Your task to perform on an android device: turn off airplane mode Image 0: 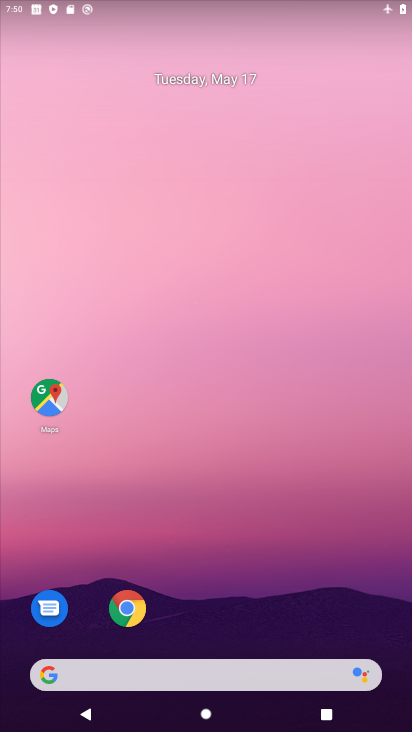
Step 0: drag from (224, 623) to (270, 95)
Your task to perform on an android device: turn off airplane mode Image 1: 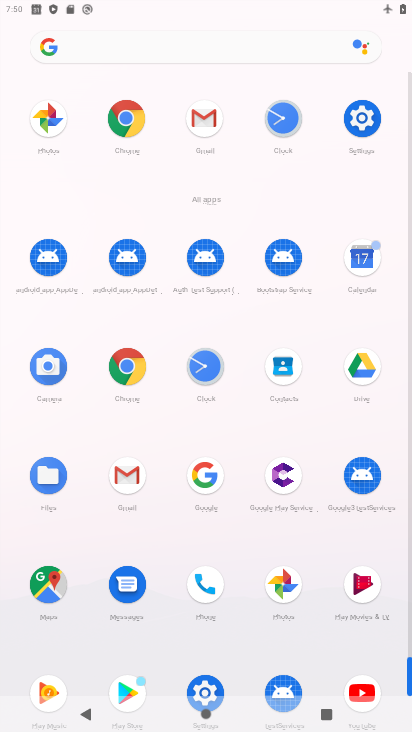
Step 1: click (375, 116)
Your task to perform on an android device: turn off airplane mode Image 2: 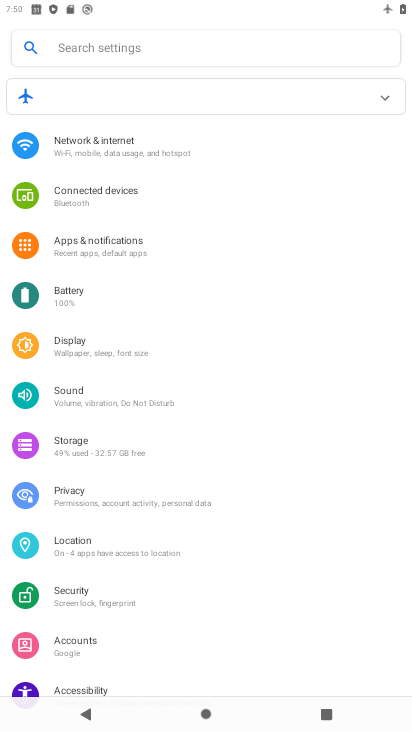
Step 2: click (173, 155)
Your task to perform on an android device: turn off airplane mode Image 3: 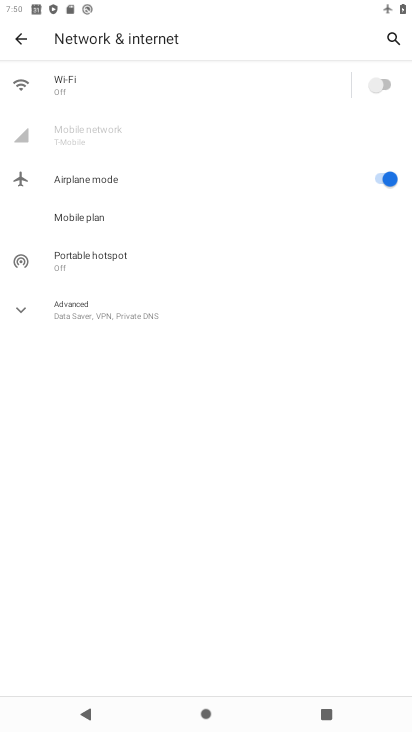
Step 3: click (376, 183)
Your task to perform on an android device: turn off airplane mode Image 4: 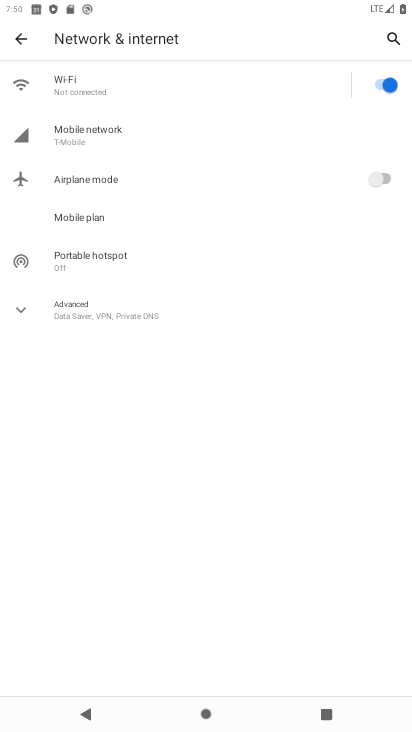
Step 4: task complete